Your task to perform on an android device: Search for Mexican restaurants on Maps Image 0: 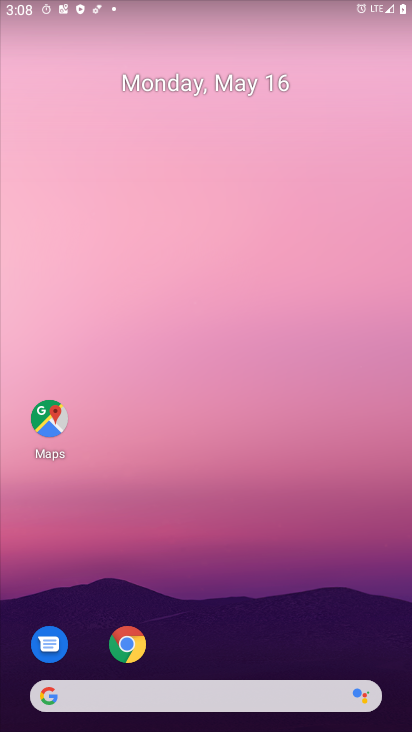
Step 0: drag from (227, 671) to (281, 220)
Your task to perform on an android device: Search for Mexican restaurants on Maps Image 1: 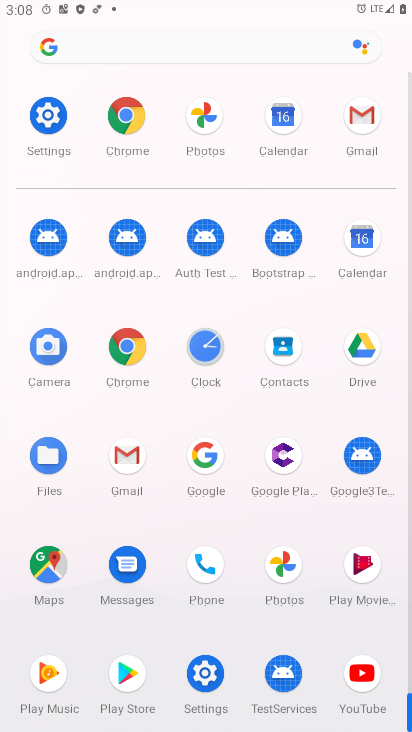
Step 1: click (57, 577)
Your task to perform on an android device: Search for Mexican restaurants on Maps Image 2: 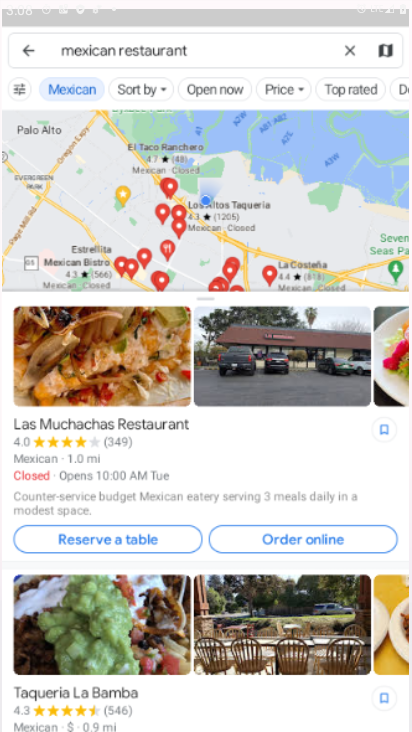
Step 2: click (58, 577)
Your task to perform on an android device: Search for Mexican restaurants on Maps Image 3: 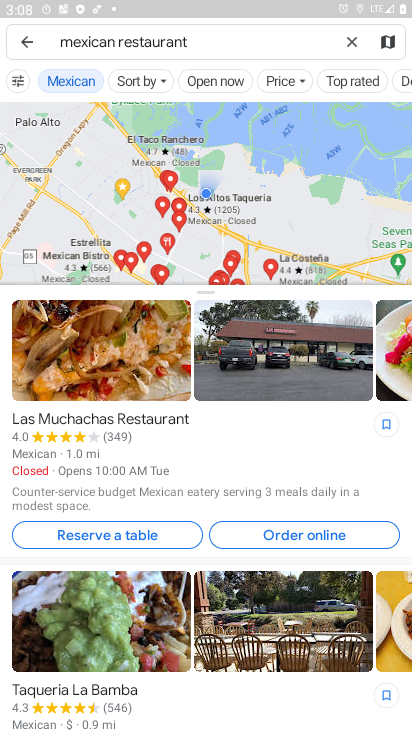
Step 3: task complete